Your task to perform on an android device: add a contact Image 0: 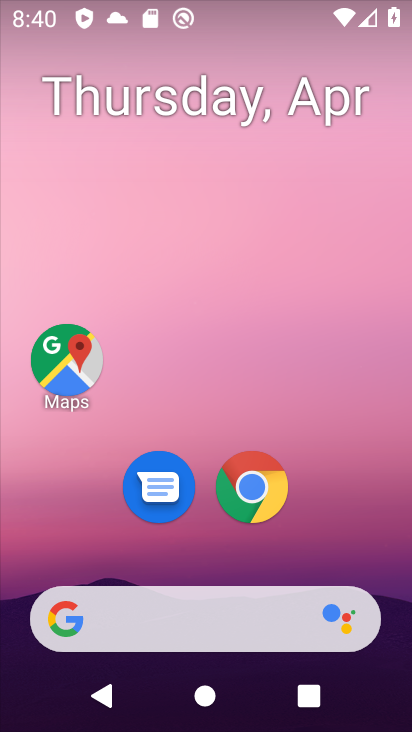
Step 0: drag from (223, 498) to (226, 115)
Your task to perform on an android device: add a contact Image 1: 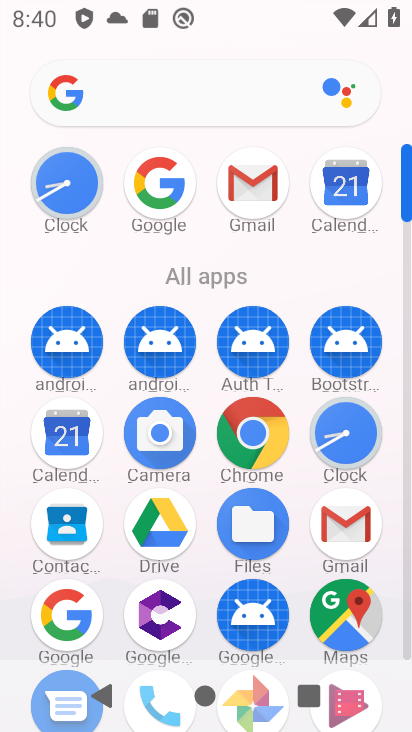
Step 1: click (82, 518)
Your task to perform on an android device: add a contact Image 2: 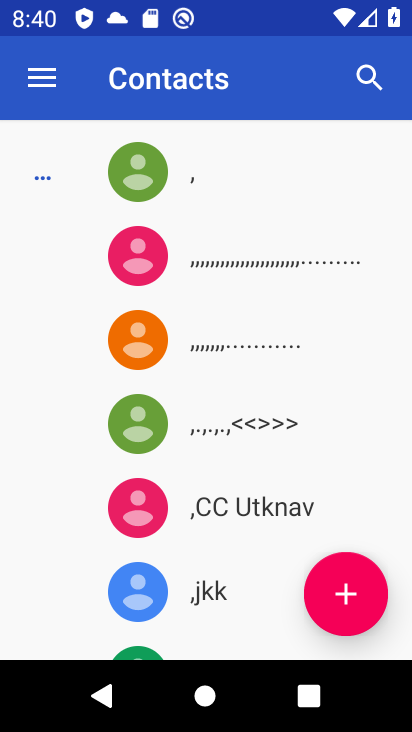
Step 2: click (355, 585)
Your task to perform on an android device: add a contact Image 3: 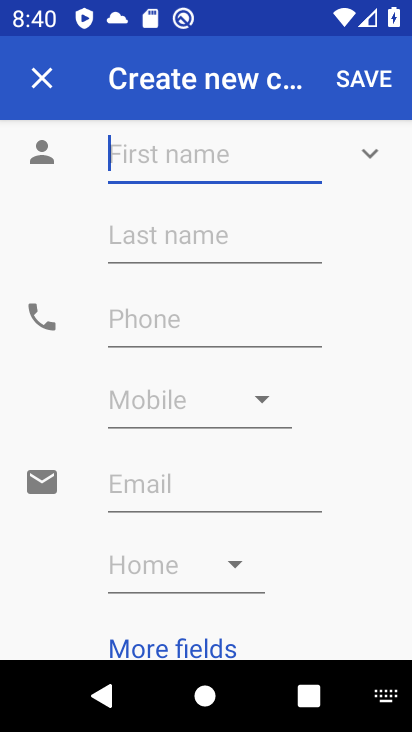
Step 3: type "gffh"
Your task to perform on an android device: add a contact Image 4: 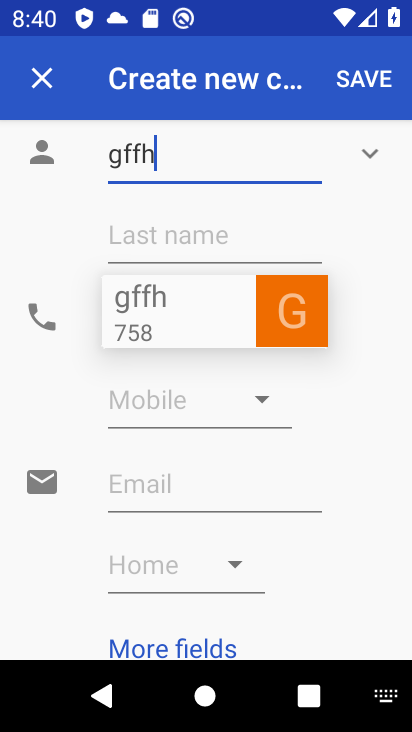
Step 4: click (141, 320)
Your task to perform on an android device: add a contact Image 5: 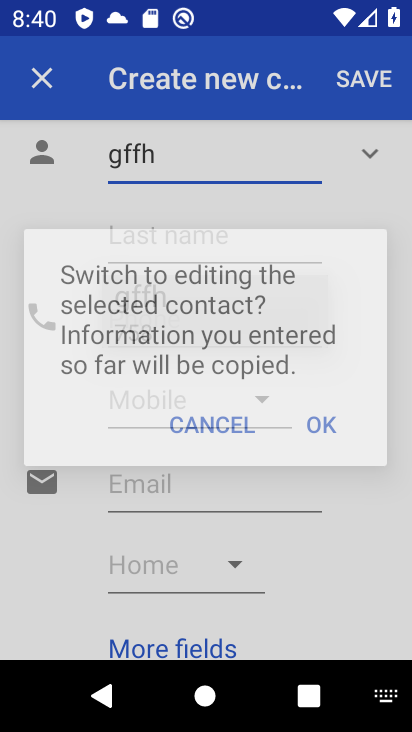
Step 5: click (185, 383)
Your task to perform on an android device: add a contact Image 6: 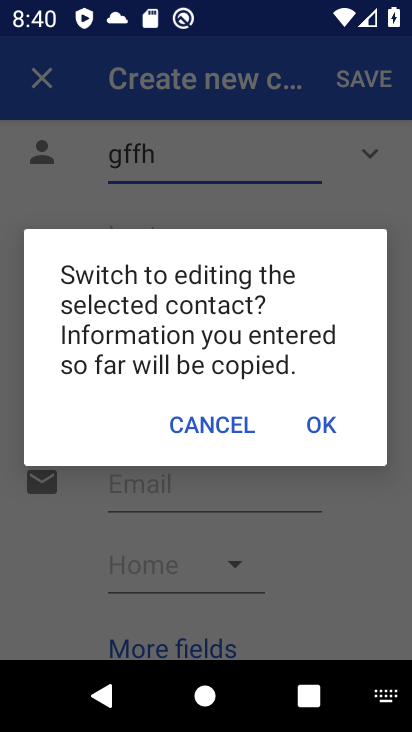
Step 6: click (212, 421)
Your task to perform on an android device: add a contact Image 7: 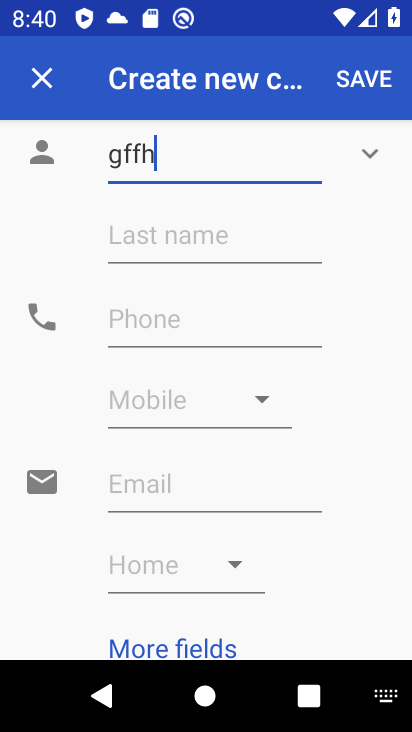
Step 7: click (131, 304)
Your task to perform on an android device: add a contact Image 8: 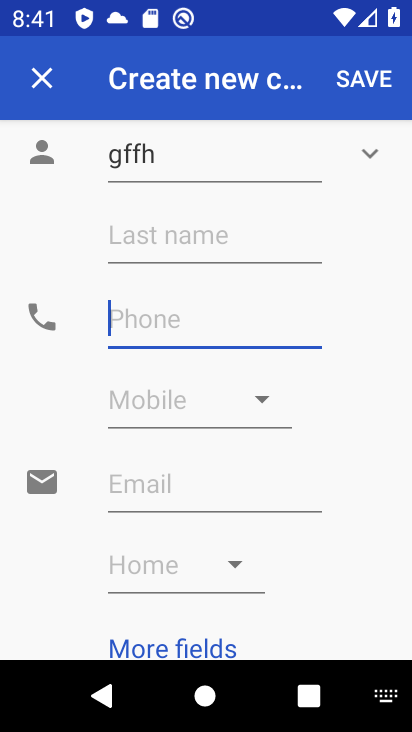
Step 8: type "88675644568"
Your task to perform on an android device: add a contact Image 9: 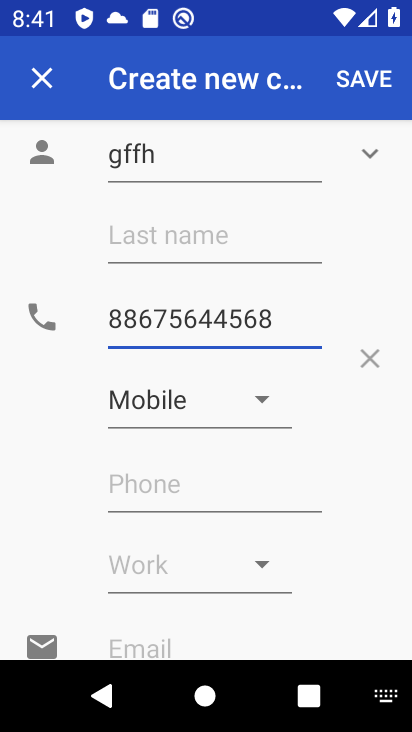
Step 9: click (359, 79)
Your task to perform on an android device: add a contact Image 10: 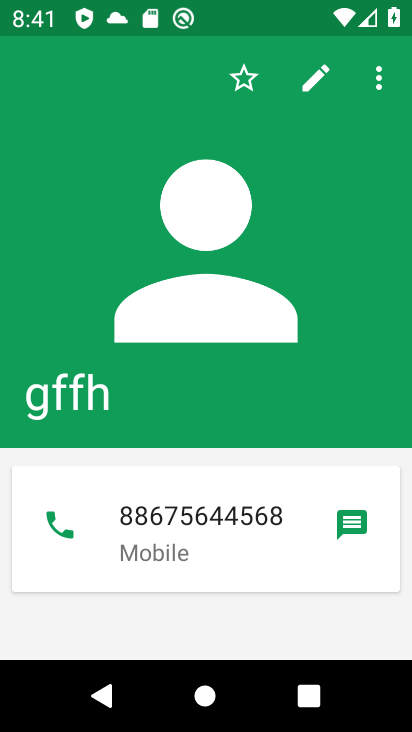
Step 10: task complete